Your task to perform on an android device: check data usage Image 0: 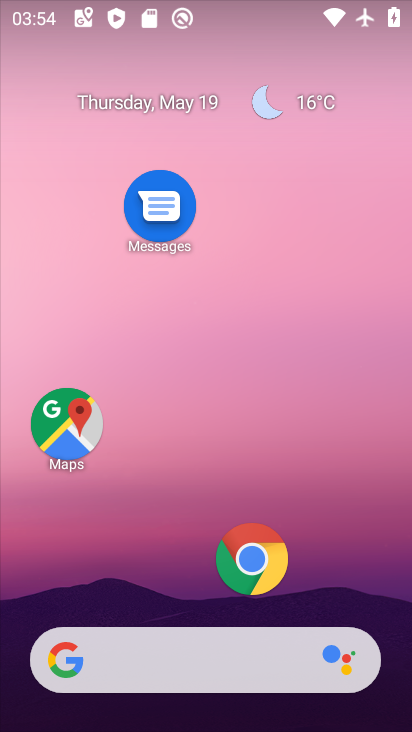
Step 0: drag from (167, 601) to (278, 159)
Your task to perform on an android device: check data usage Image 1: 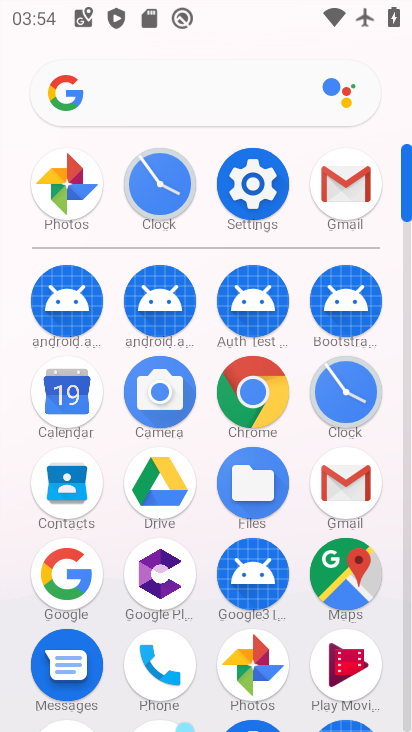
Step 1: click (252, 168)
Your task to perform on an android device: check data usage Image 2: 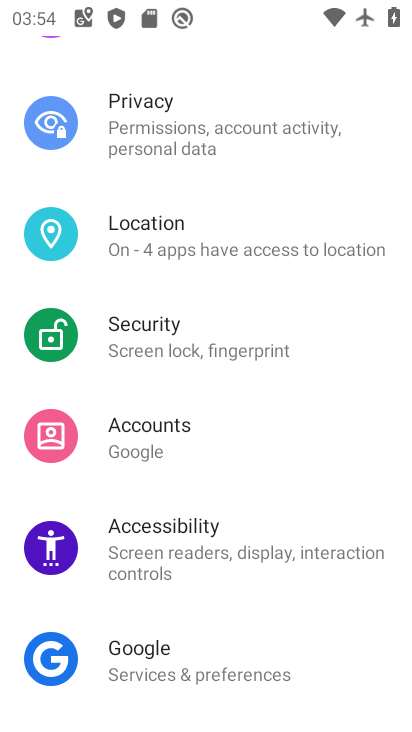
Step 2: drag from (227, 180) to (228, 455)
Your task to perform on an android device: check data usage Image 3: 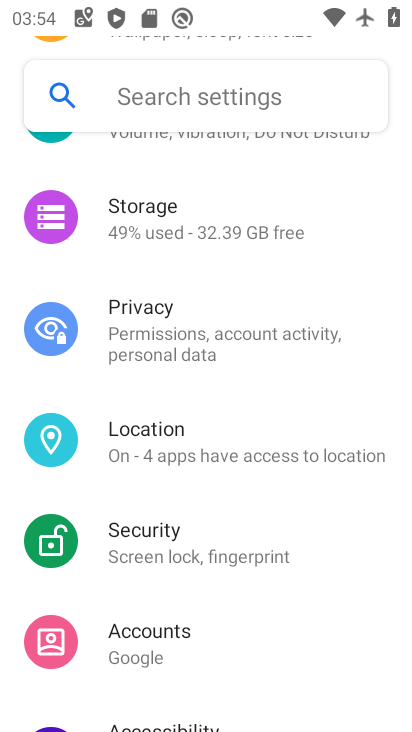
Step 3: drag from (224, 196) to (224, 506)
Your task to perform on an android device: check data usage Image 4: 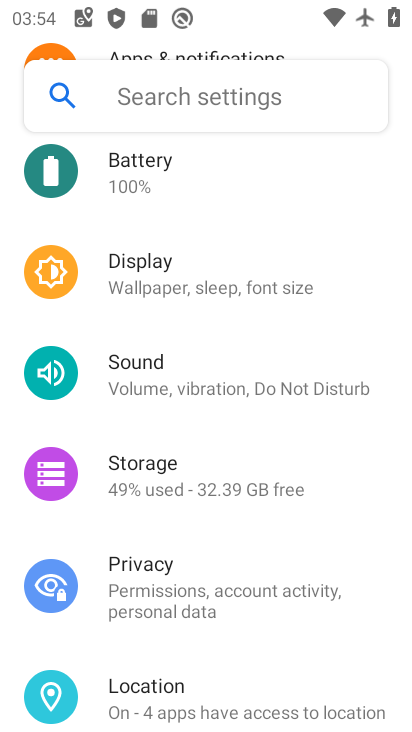
Step 4: drag from (217, 250) to (216, 526)
Your task to perform on an android device: check data usage Image 5: 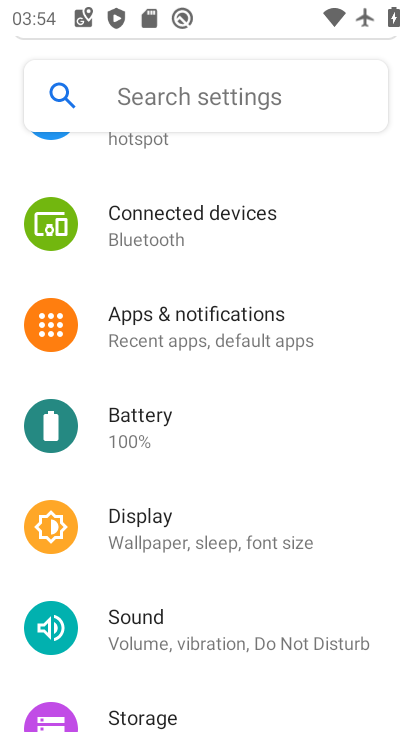
Step 5: drag from (204, 219) to (207, 515)
Your task to perform on an android device: check data usage Image 6: 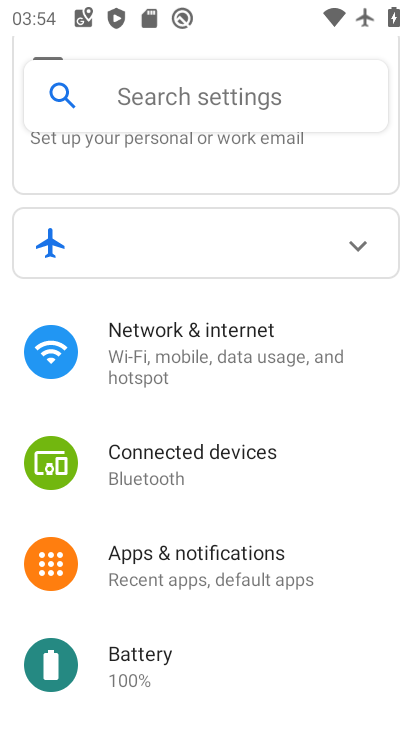
Step 6: click (205, 380)
Your task to perform on an android device: check data usage Image 7: 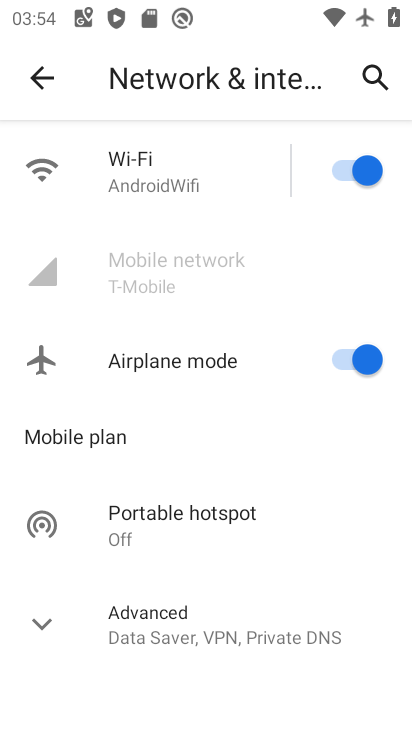
Step 7: click (144, 293)
Your task to perform on an android device: check data usage Image 8: 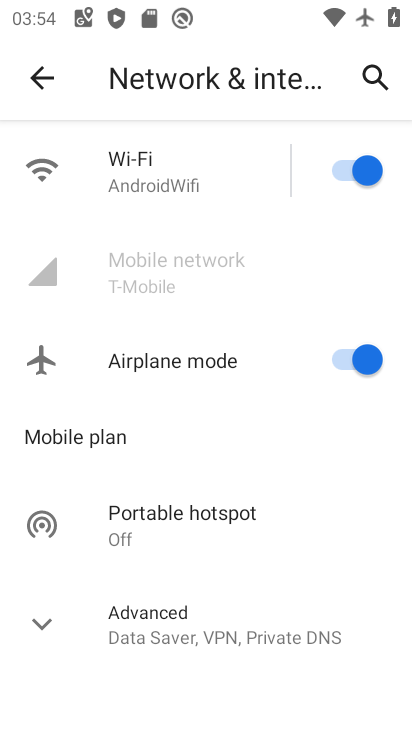
Step 8: click (159, 296)
Your task to perform on an android device: check data usage Image 9: 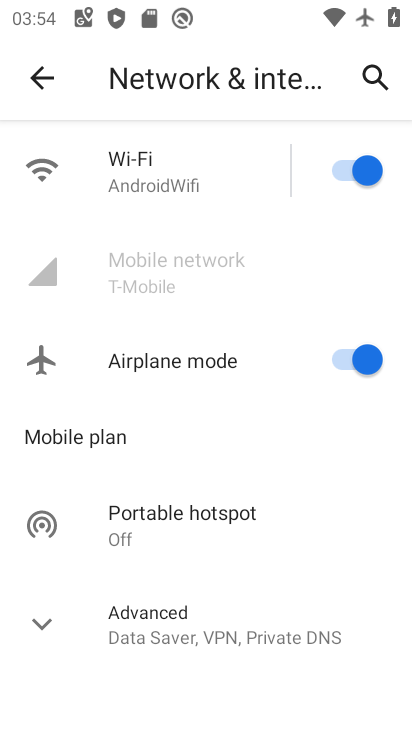
Step 9: task complete